Your task to perform on an android device: Go to Google maps Image 0: 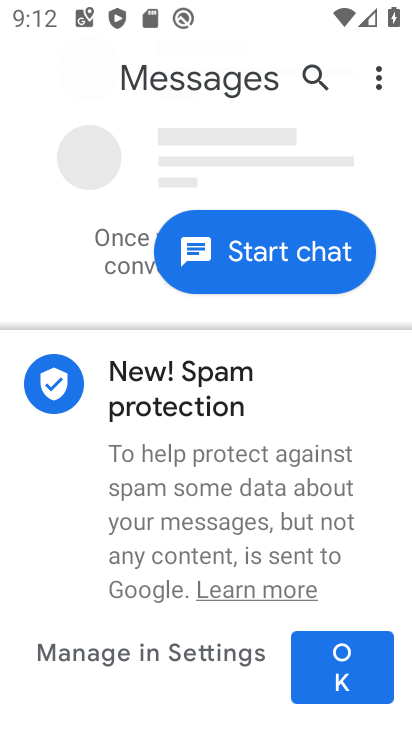
Step 0: press home button
Your task to perform on an android device: Go to Google maps Image 1: 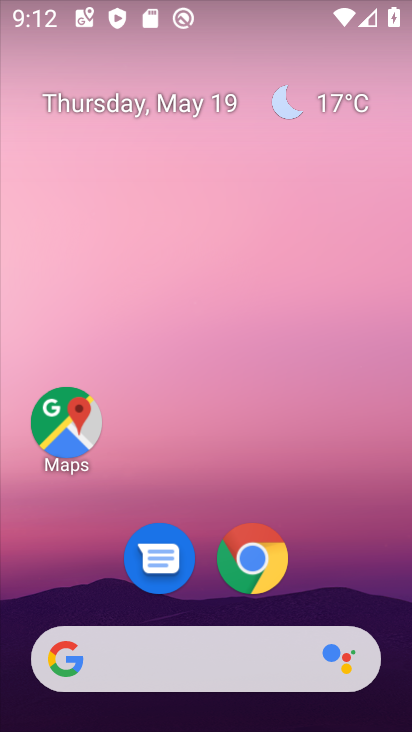
Step 1: drag from (180, 724) to (180, 155)
Your task to perform on an android device: Go to Google maps Image 2: 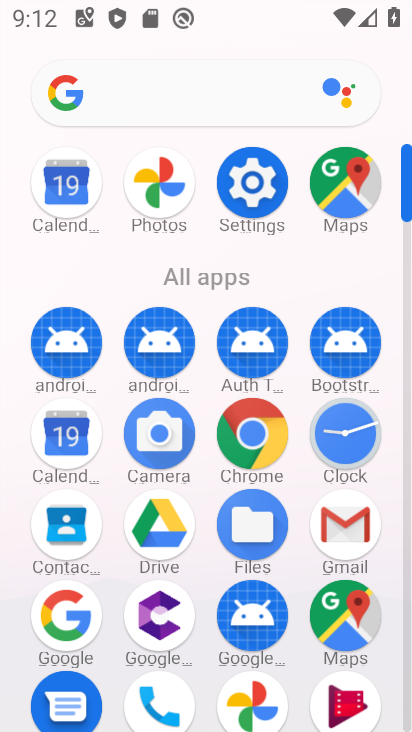
Step 2: click (347, 607)
Your task to perform on an android device: Go to Google maps Image 3: 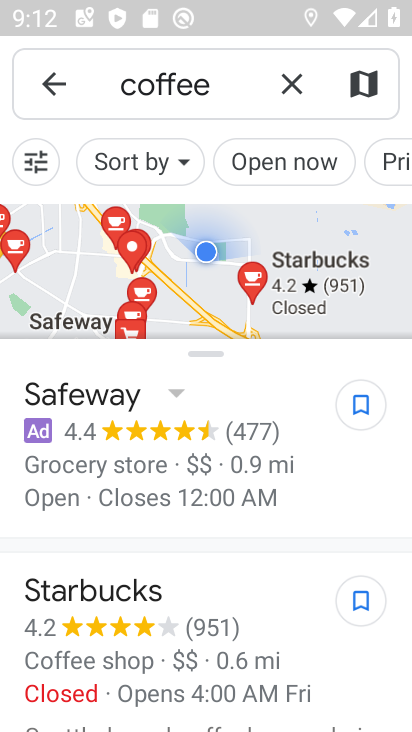
Step 3: task complete